Your task to perform on an android device: install app "Flipkart Online Shopping App" Image 0: 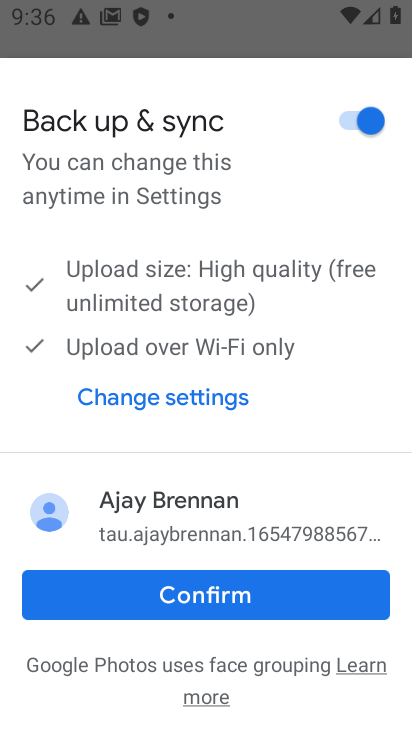
Step 0: press home button
Your task to perform on an android device: install app "Flipkart Online Shopping App" Image 1: 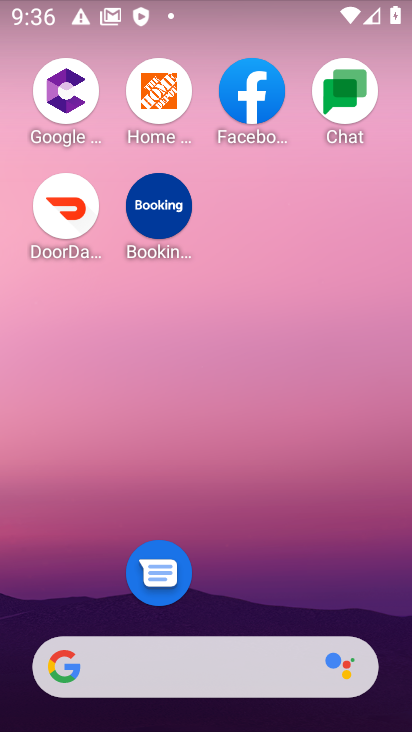
Step 1: drag from (203, 647) to (292, 226)
Your task to perform on an android device: install app "Flipkart Online Shopping App" Image 2: 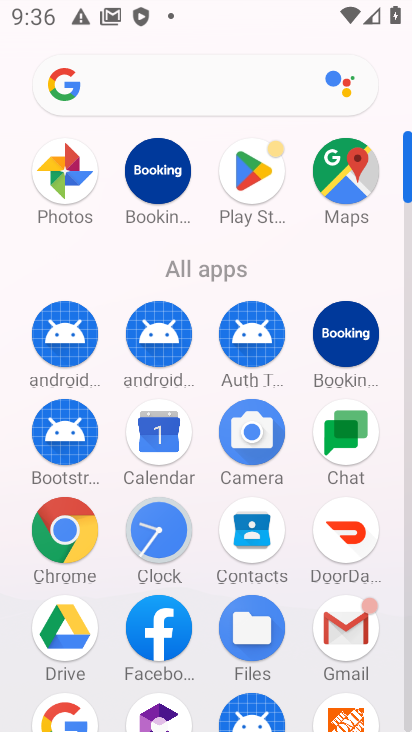
Step 2: click (257, 181)
Your task to perform on an android device: install app "Flipkart Online Shopping App" Image 3: 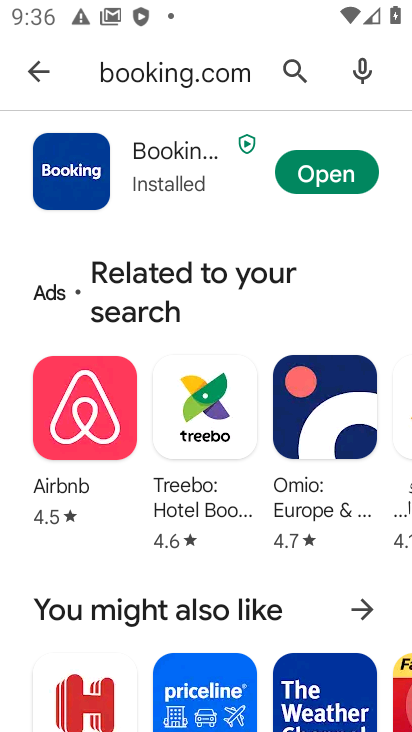
Step 3: click (298, 55)
Your task to perform on an android device: install app "Flipkart Online Shopping App" Image 4: 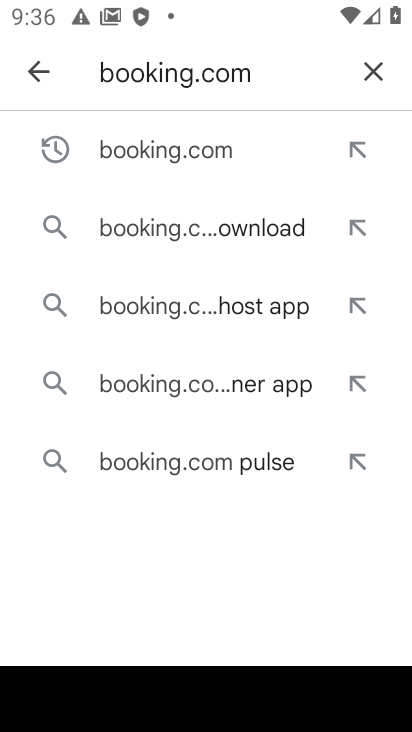
Step 4: click (371, 67)
Your task to perform on an android device: install app "Flipkart Online Shopping App" Image 5: 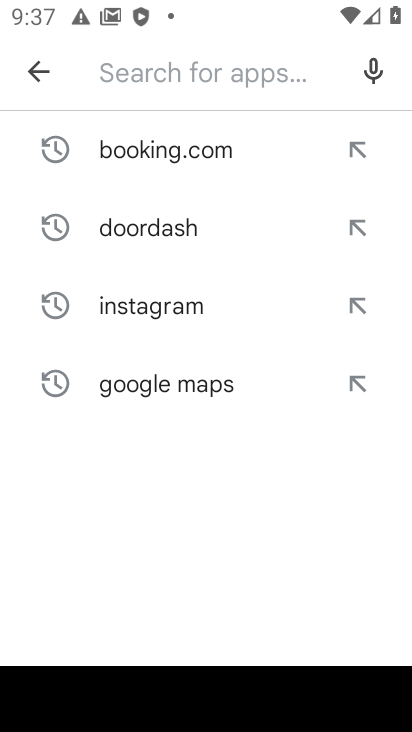
Step 5: type "fipkart online shopping app"
Your task to perform on an android device: install app "Flipkart Online Shopping App" Image 6: 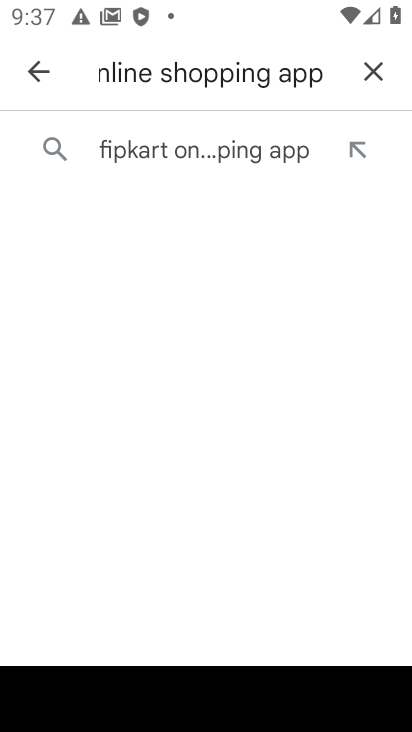
Step 6: click (258, 152)
Your task to perform on an android device: install app "Flipkart Online Shopping App" Image 7: 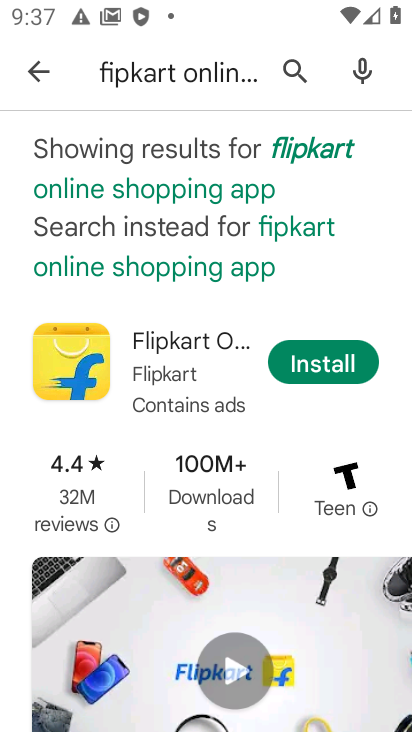
Step 7: click (307, 365)
Your task to perform on an android device: install app "Flipkart Online Shopping App" Image 8: 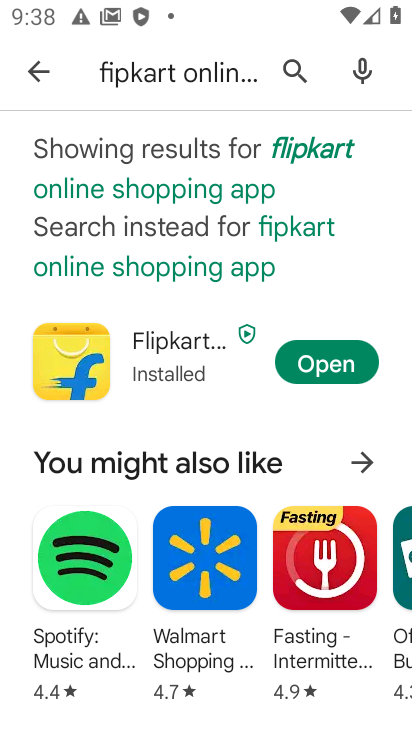
Step 8: task complete